Your task to perform on an android device: Open Yahoo.com Image 0: 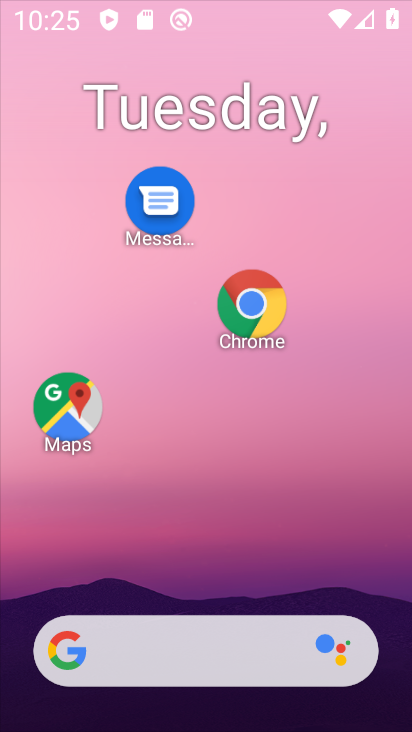
Step 0: click (317, 276)
Your task to perform on an android device: Open Yahoo.com Image 1: 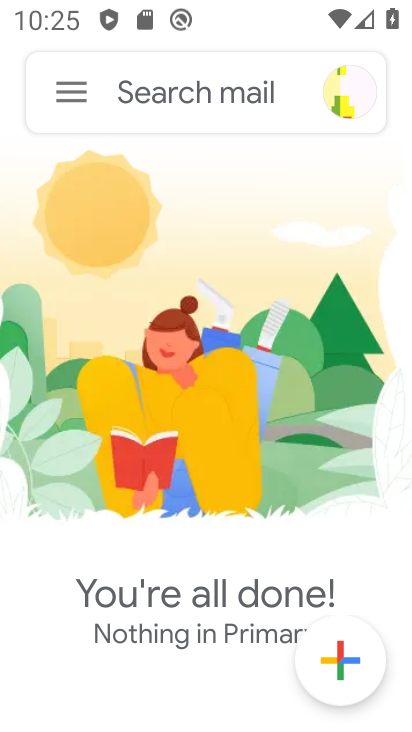
Step 1: press home button
Your task to perform on an android device: Open Yahoo.com Image 2: 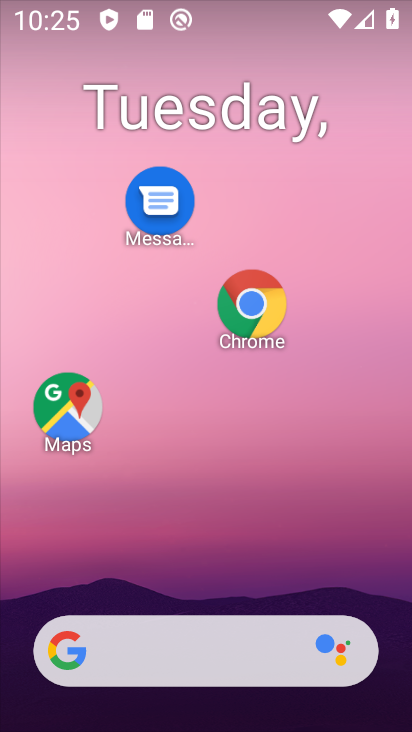
Step 2: drag from (266, 559) to (286, 215)
Your task to perform on an android device: Open Yahoo.com Image 3: 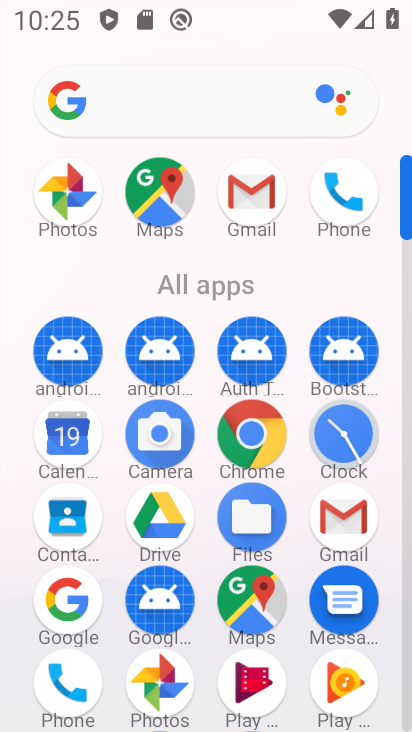
Step 3: click (257, 439)
Your task to perform on an android device: Open Yahoo.com Image 4: 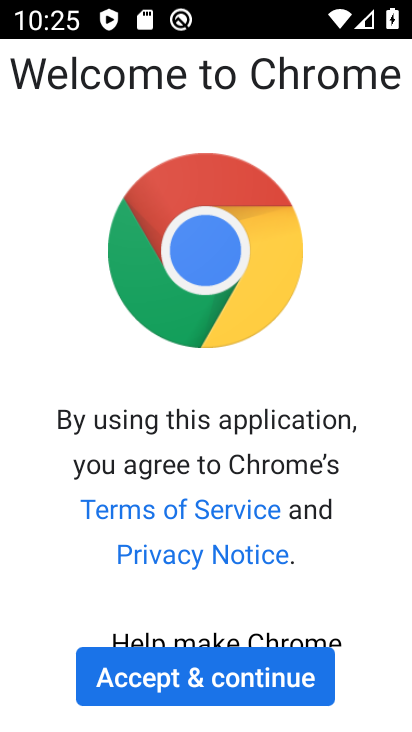
Step 4: click (244, 670)
Your task to perform on an android device: Open Yahoo.com Image 5: 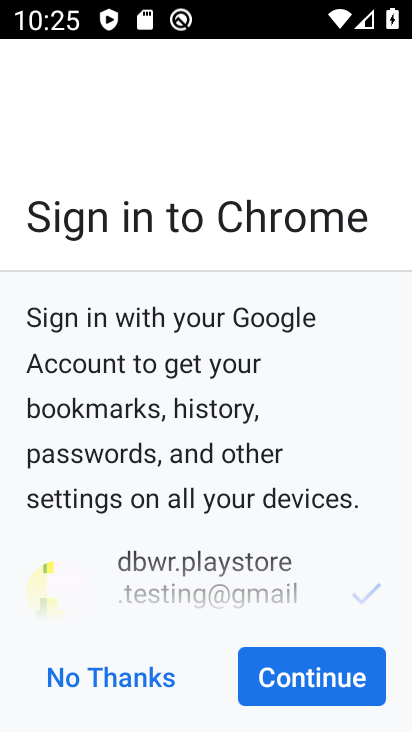
Step 5: click (293, 675)
Your task to perform on an android device: Open Yahoo.com Image 6: 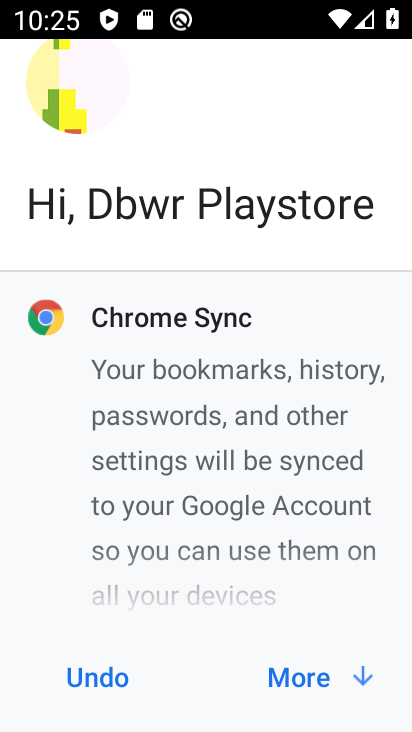
Step 6: click (293, 676)
Your task to perform on an android device: Open Yahoo.com Image 7: 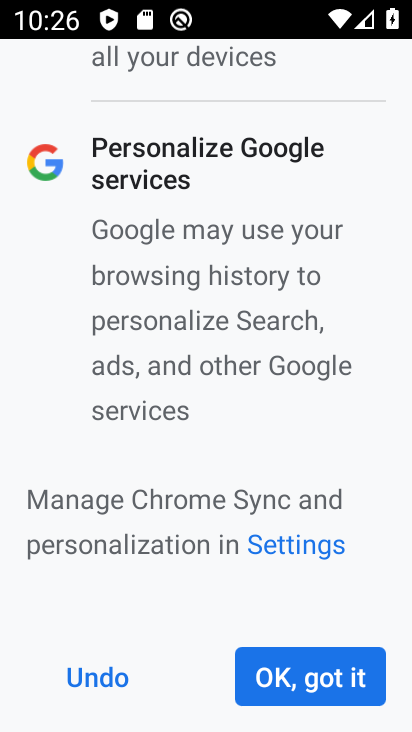
Step 7: click (293, 676)
Your task to perform on an android device: Open Yahoo.com Image 8: 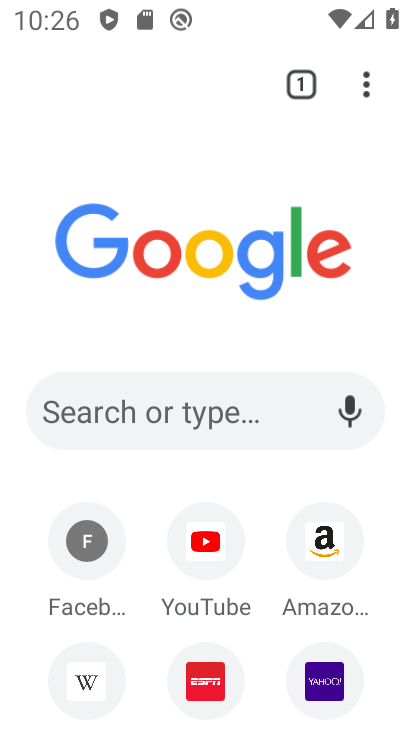
Step 8: click (325, 682)
Your task to perform on an android device: Open Yahoo.com Image 9: 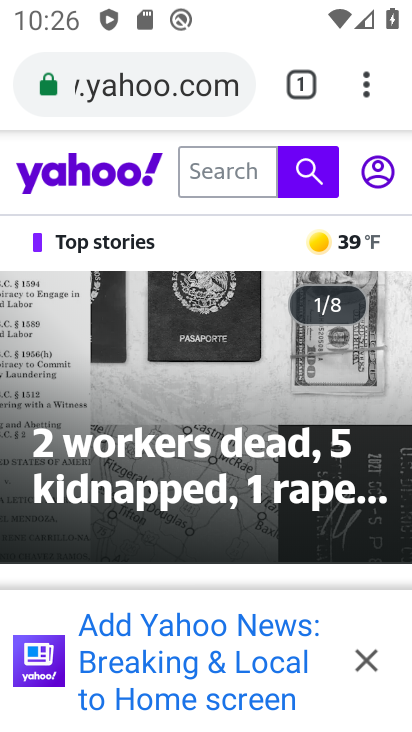
Step 9: task complete